Your task to perform on an android device: Open maps Image 0: 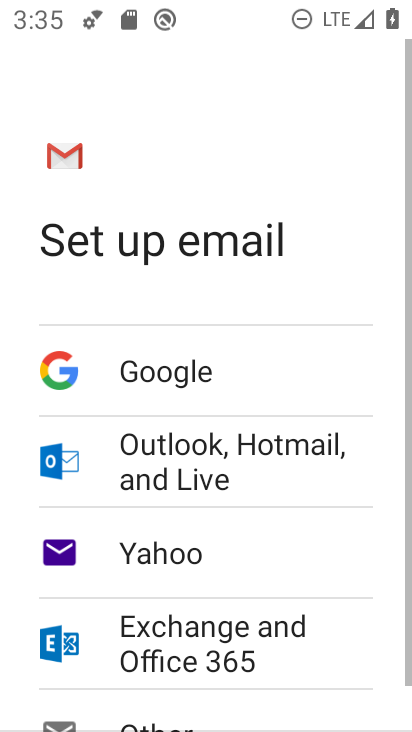
Step 0: press home button
Your task to perform on an android device: Open maps Image 1: 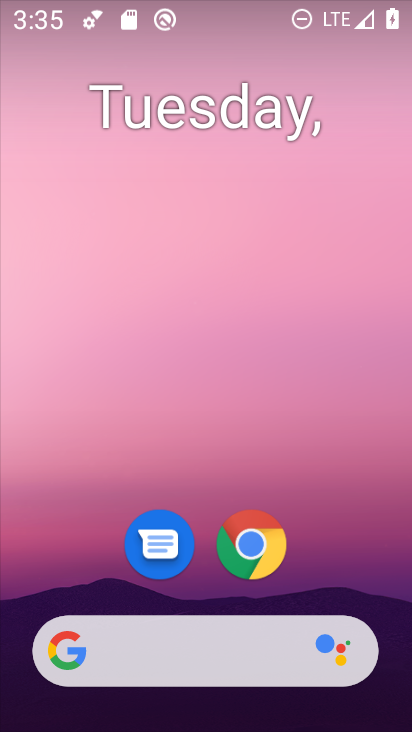
Step 1: drag from (359, 573) to (364, 148)
Your task to perform on an android device: Open maps Image 2: 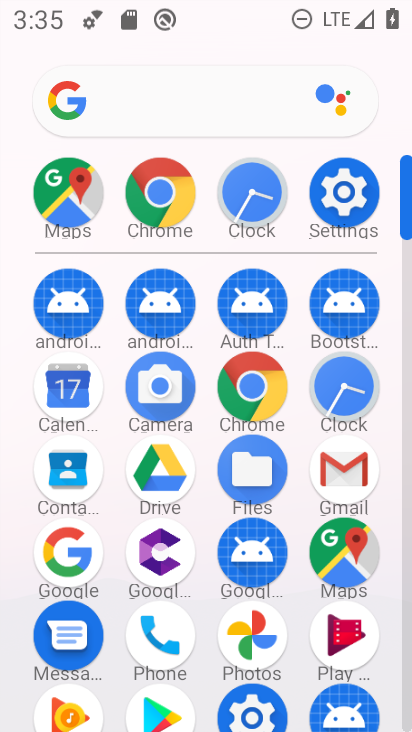
Step 2: click (360, 554)
Your task to perform on an android device: Open maps Image 3: 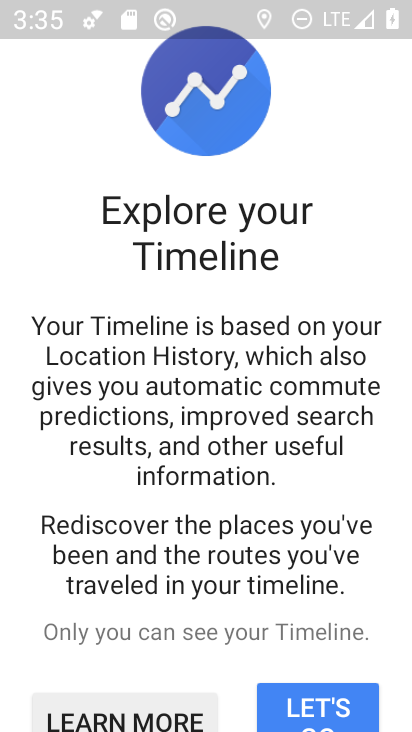
Step 3: drag from (367, 576) to (369, 327)
Your task to perform on an android device: Open maps Image 4: 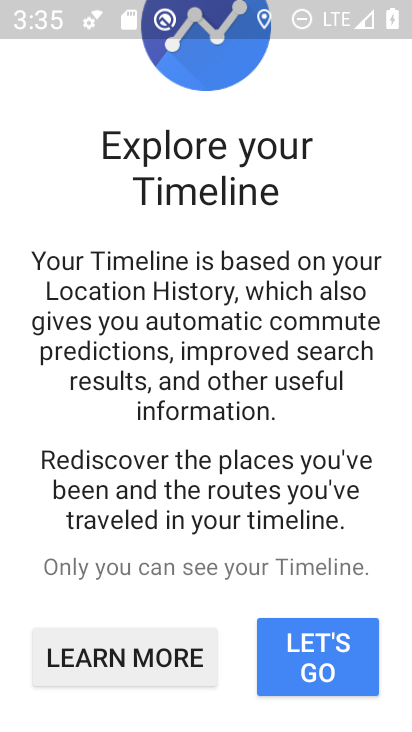
Step 4: drag from (341, 559) to (339, 374)
Your task to perform on an android device: Open maps Image 5: 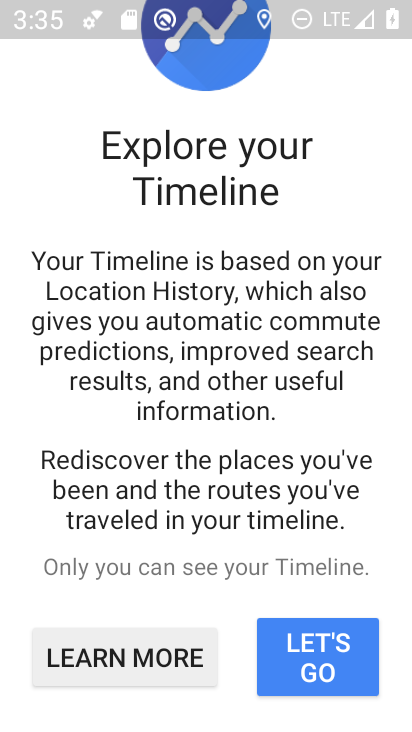
Step 5: click (282, 652)
Your task to perform on an android device: Open maps Image 6: 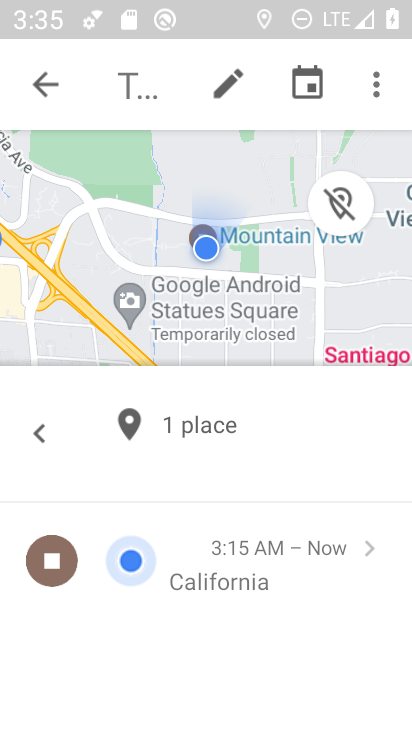
Step 6: click (55, 82)
Your task to perform on an android device: Open maps Image 7: 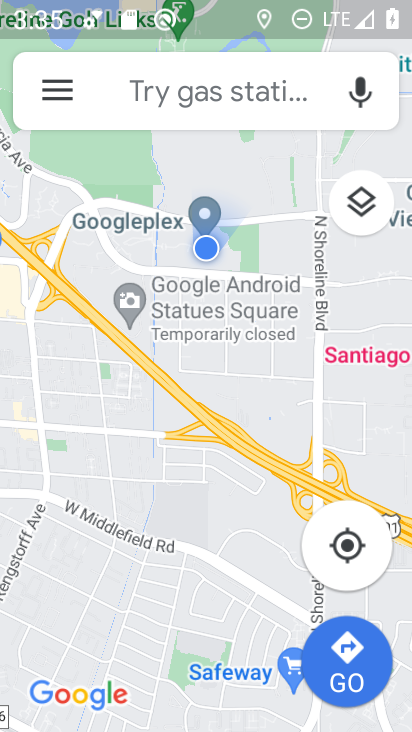
Step 7: task complete